Your task to perform on an android device: When is my next meeting? Image 0: 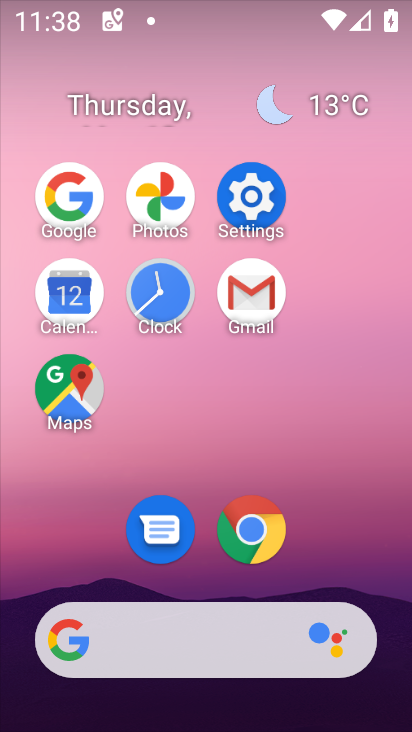
Step 0: click (79, 297)
Your task to perform on an android device: When is my next meeting? Image 1: 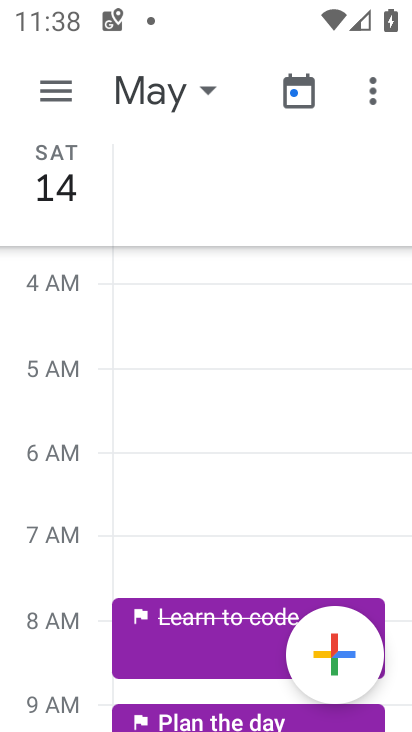
Step 1: task complete